Your task to perform on an android device: Open Google Maps Image 0: 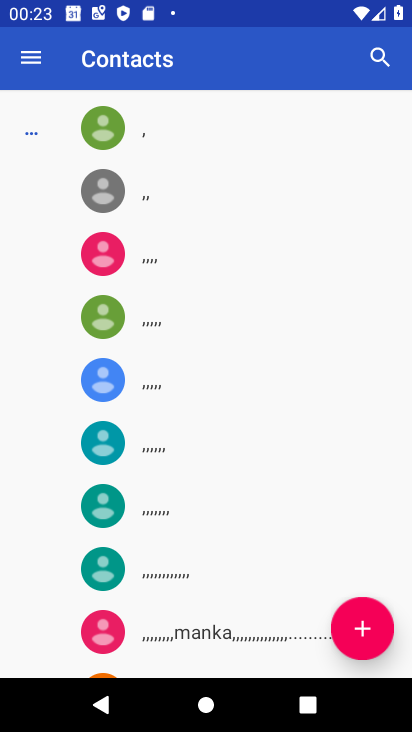
Step 0: press home button
Your task to perform on an android device: Open Google Maps Image 1: 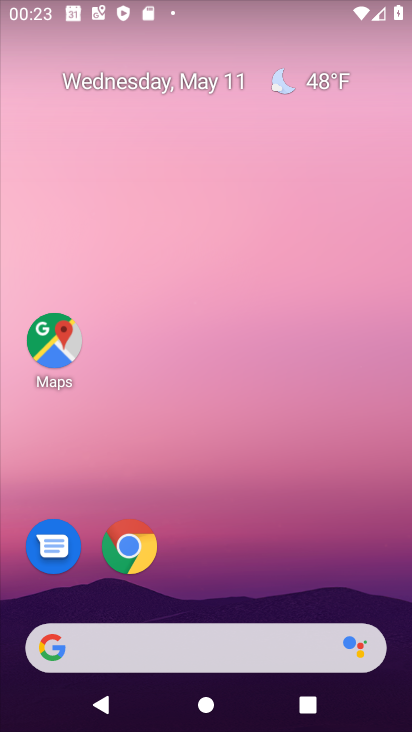
Step 1: click (43, 350)
Your task to perform on an android device: Open Google Maps Image 2: 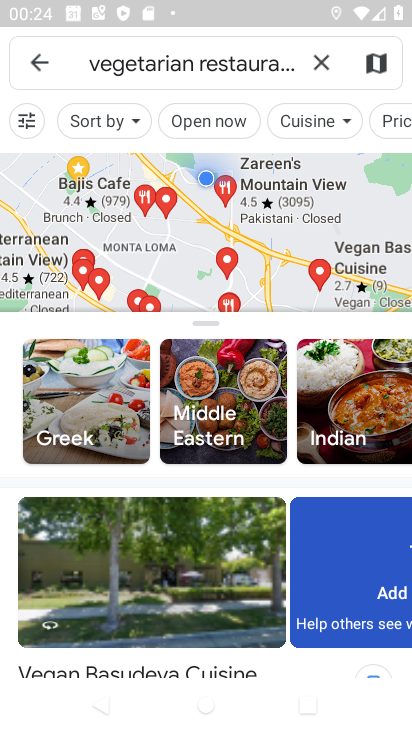
Step 2: task complete